Your task to perform on an android device: Is it going to rain tomorrow? Image 0: 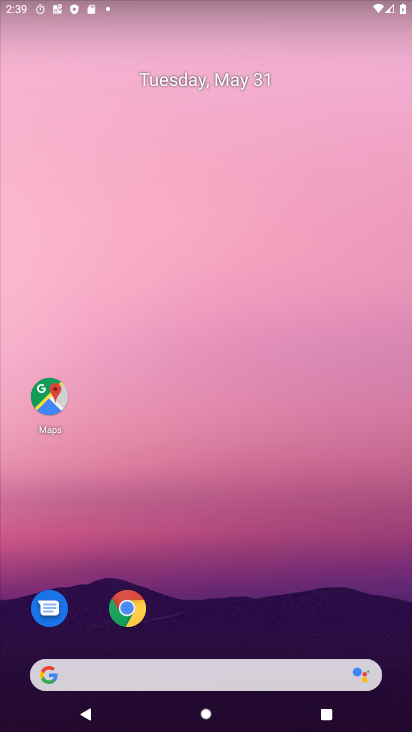
Step 0: click (382, 173)
Your task to perform on an android device: Is it going to rain tomorrow? Image 1: 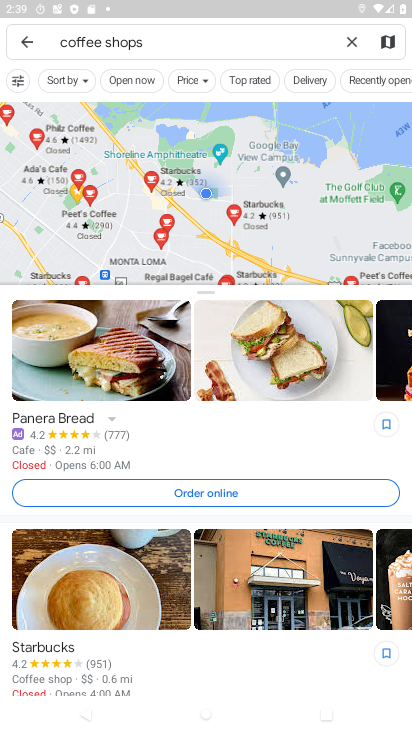
Step 1: press home button
Your task to perform on an android device: Is it going to rain tomorrow? Image 2: 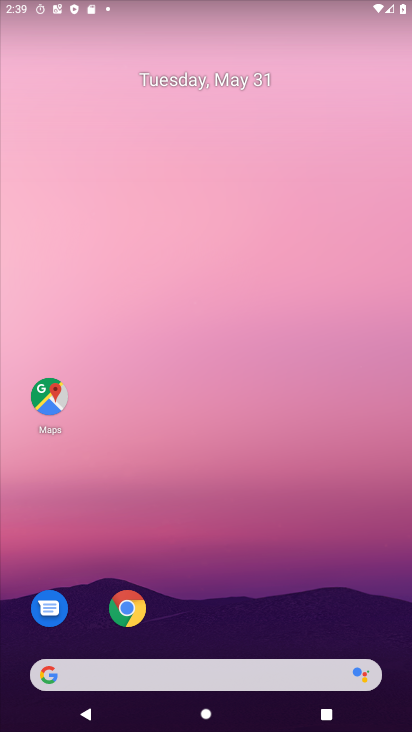
Step 2: click (156, 676)
Your task to perform on an android device: Is it going to rain tomorrow? Image 3: 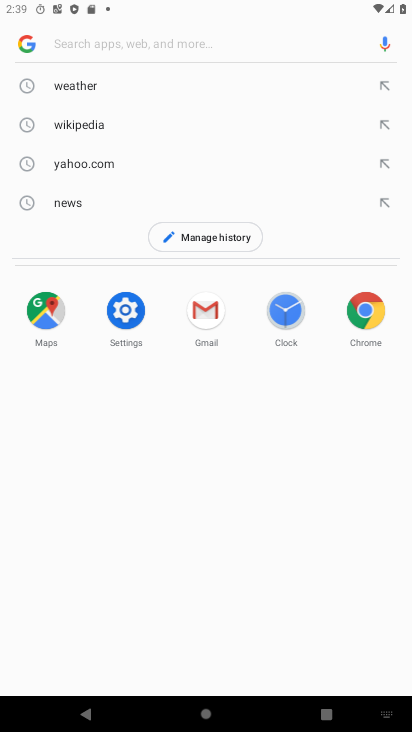
Step 3: click (88, 89)
Your task to perform on an android device: Is it going to rain tomorrow? Image 4: 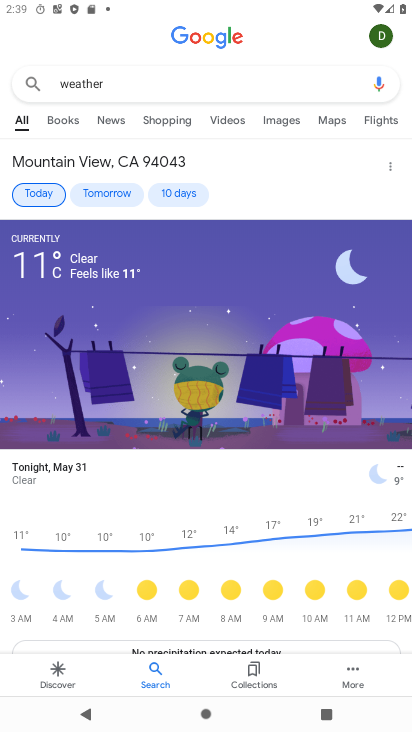
Step 4: click (109, 196)
Your task to perform on an android device: Is it going to rain tomorrow? Image 5: 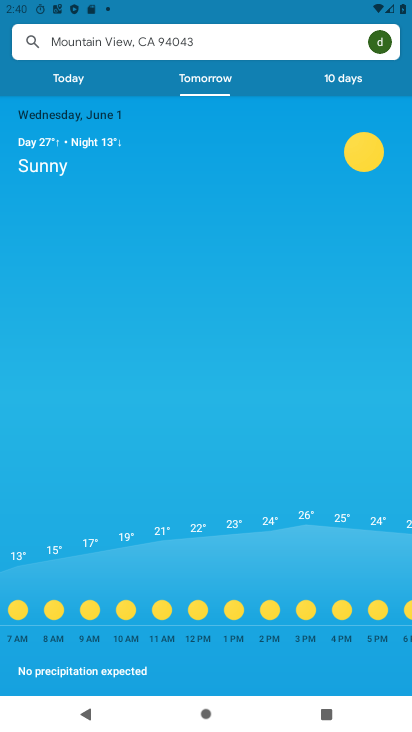
Step 5: task complete